Your task to perform on an android device: Go to accessibility settings Image 0: 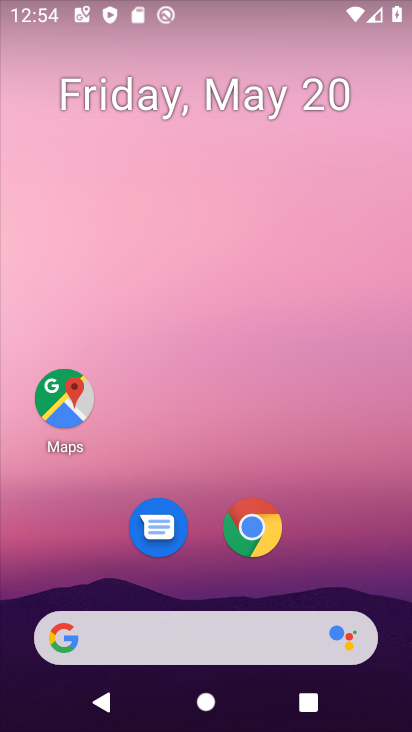
Step 0: drag from (311, 530) to (310, 13)
Your task to perform on an android device: Go to accessibility settings Image 1: 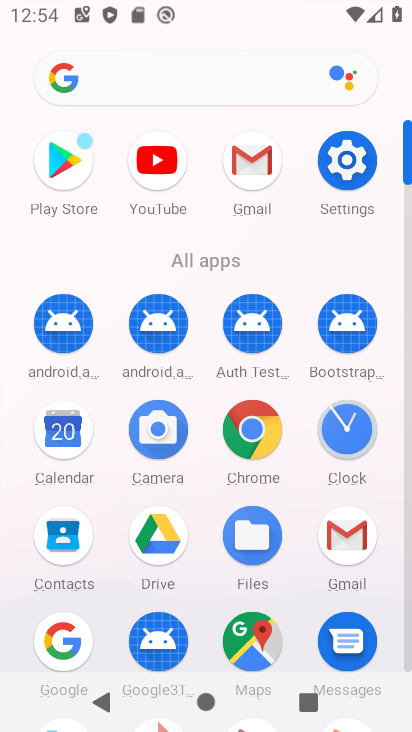
Step 1: click (333, 158)
Your task to perform on an android device: Go to accessibility settings Image 2: 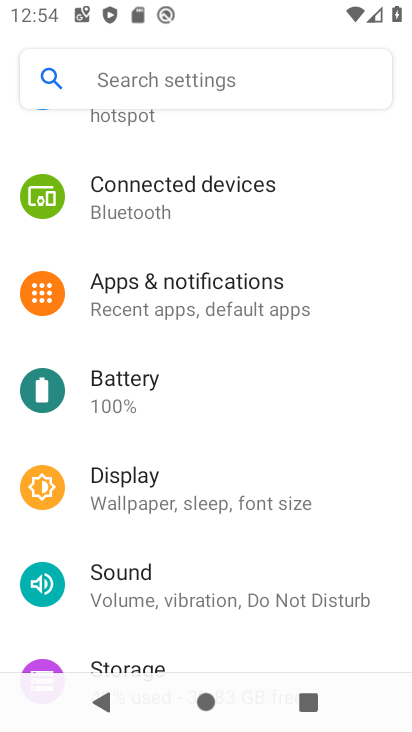
Step 2: drag from (238, 565) to (253, 89)
Your task to perform on an android device: Go to accessibility settings Image 3: 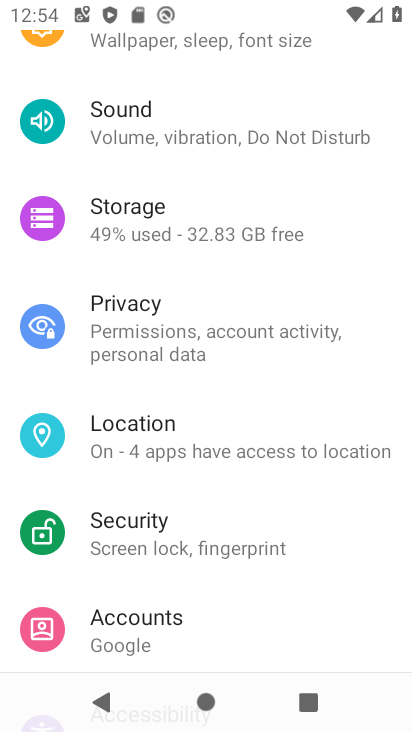
Step 3: drag from (245, 488) to (218, 104)
Your task to perform on an android device: Go to accessibility settings Image 4: 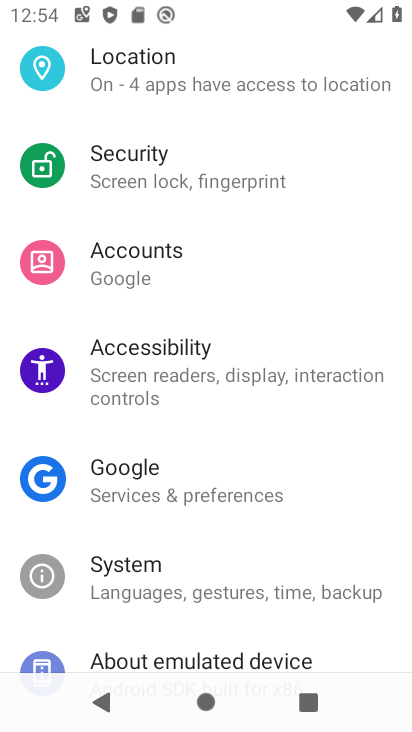
Step 4: click (208, 362)
Your task to perform on an android device: Go to accessibility settings Image 5: 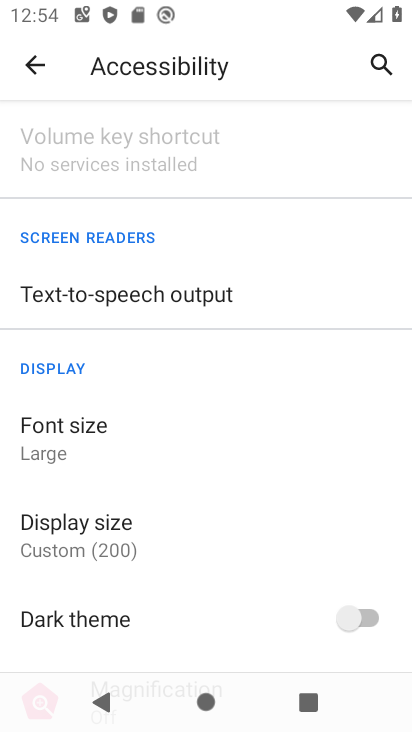
Step 5: task complete